Your task to perform on an android device: Open CNN.com Image 0: 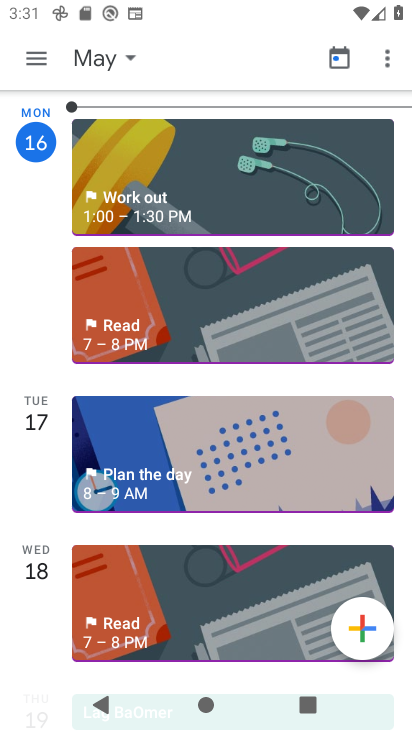
Step 0: press home button
Your task to perform on an android device: Open CNN.com Image 1: 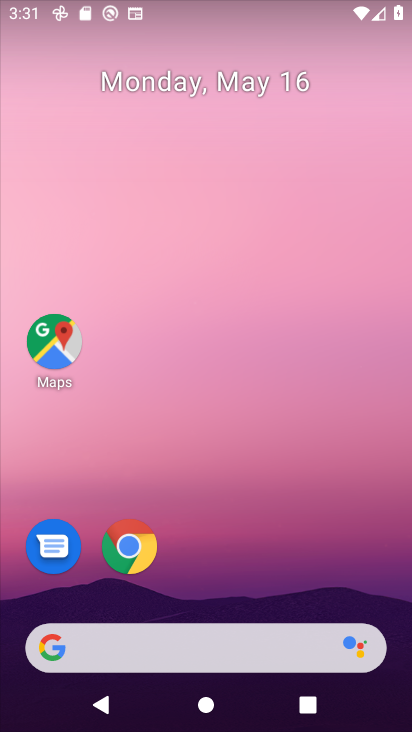
Step 1: drag from (349, 568) to (381, 111)
Your task to perform on an android device: Open CNN.com Image 2: 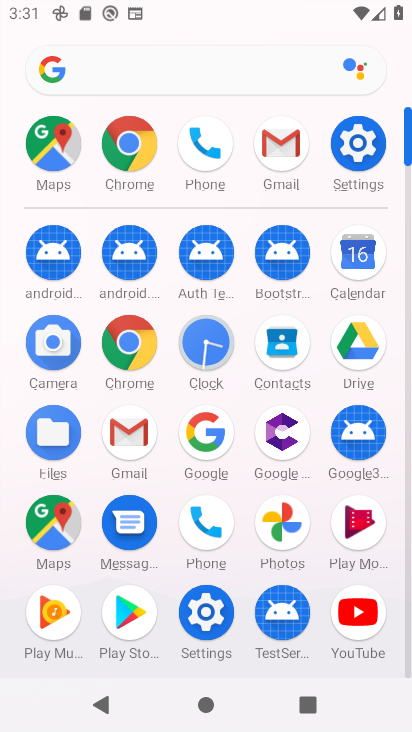
Step 2: click (123, 358)
Your task to perform on an android device: Open CNN.com Image 3: 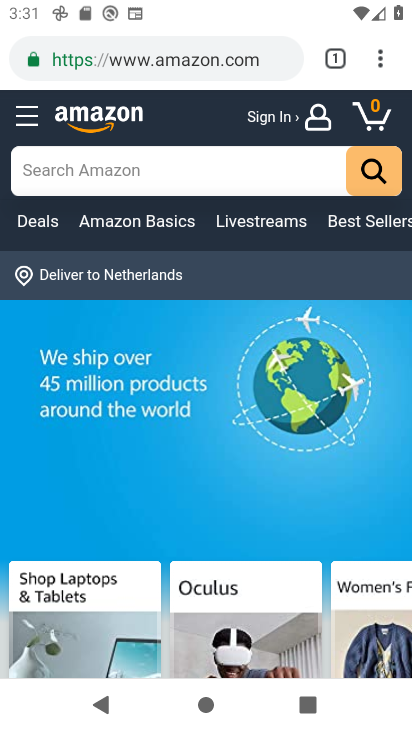
Step 3: click (206, 67)
Your task to perform on an android device: Open CNN.com Image 4: 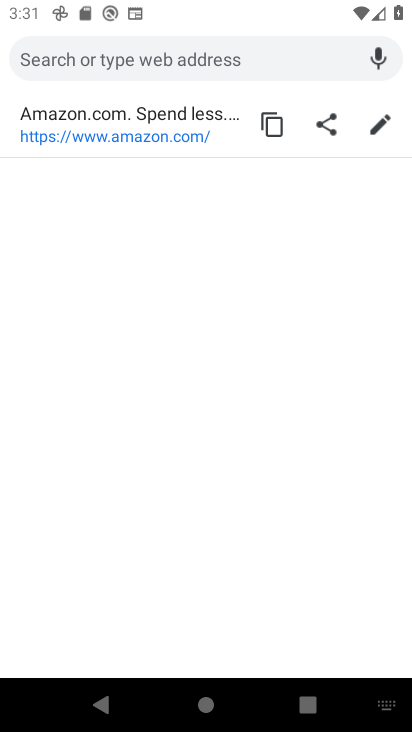
Step 4: type "cnn.com"
Your task to perform on an android device: Open CNN.com Image 5: 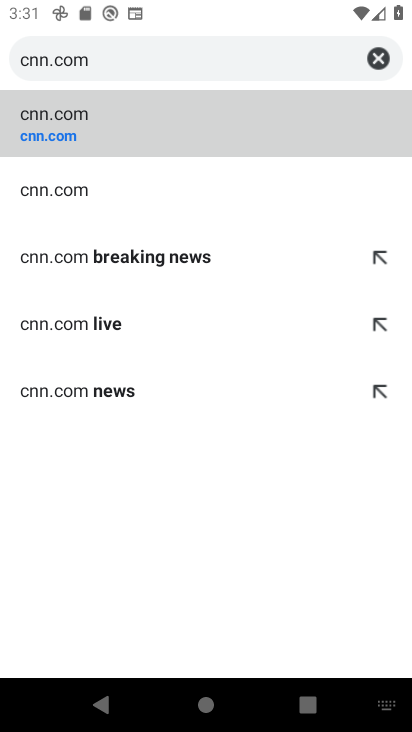
Step 5: click (87, 206)
Your task to perform on an android device: Open CNN.com Image 6: 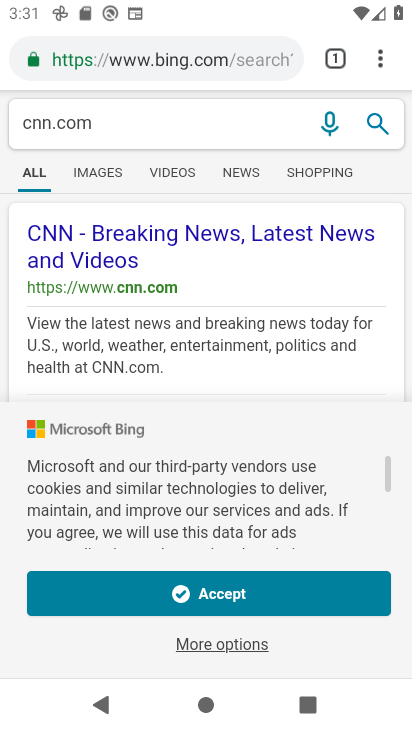
Step 6: task complete